Your task to perform on an android device: Set the phone to "Do not disturb". Image 0: 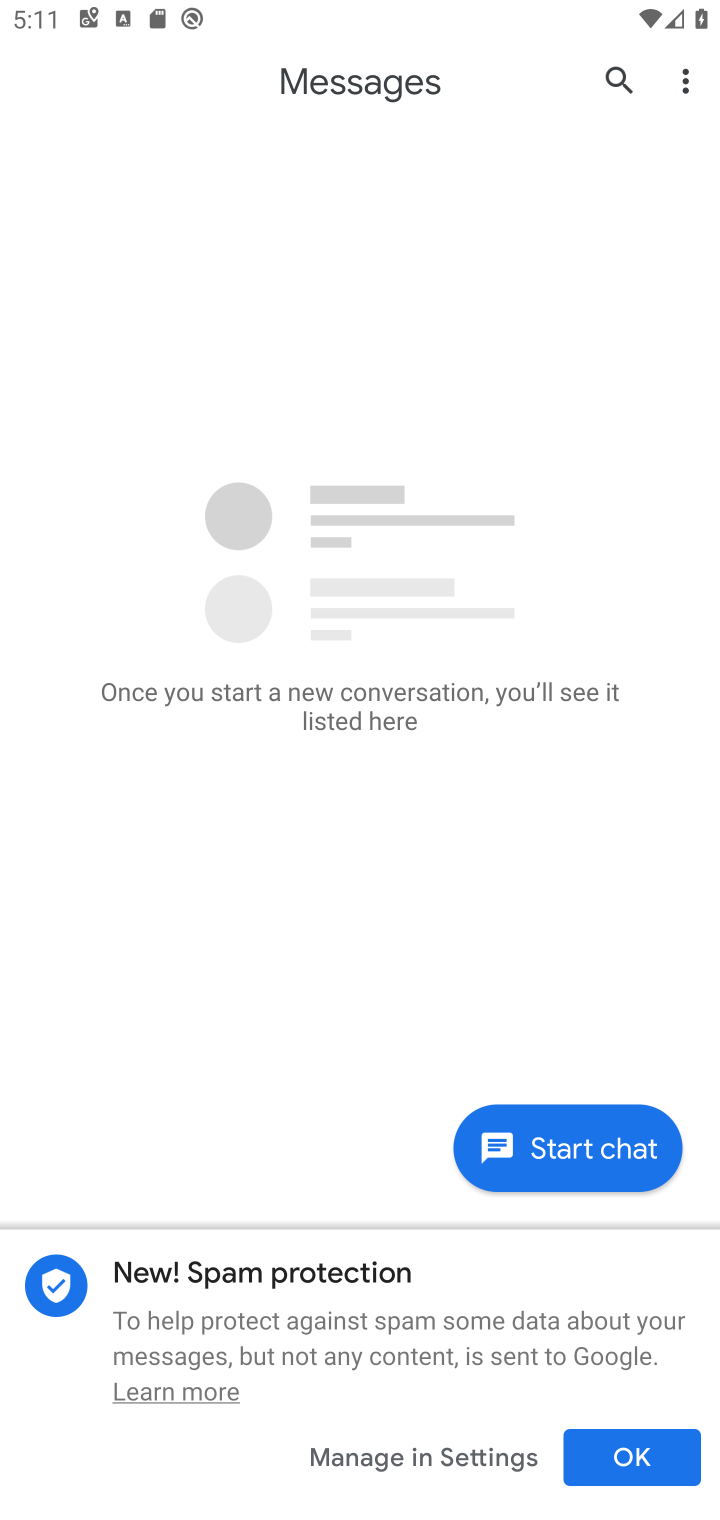
Step 0: press home button
Your task to perform on an android device: Set the phone to "Do not disturb". Image 1: 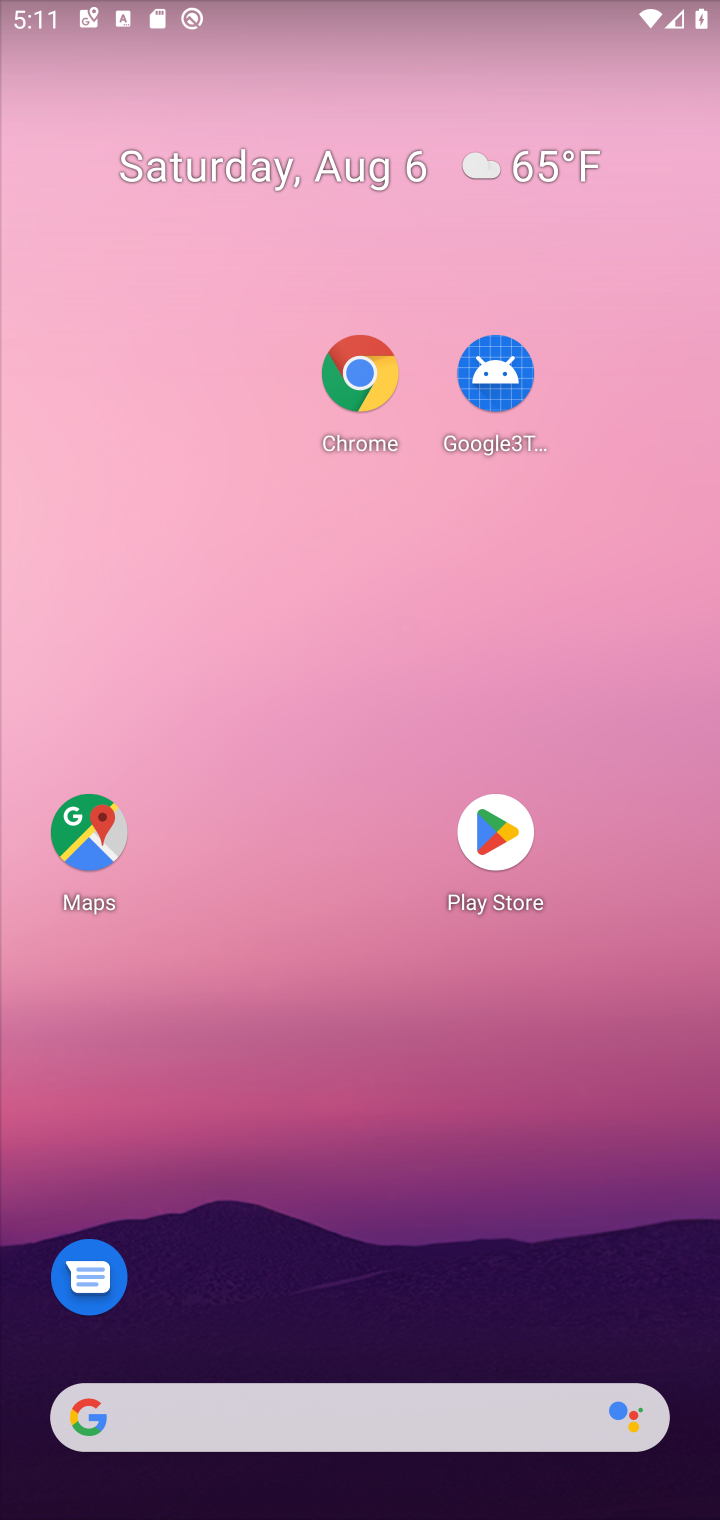
Step 1: drag from (470, 1388) to (433, 116)
Your task to perform on an android device: Set the phone to "Do not disturb". Image 2: 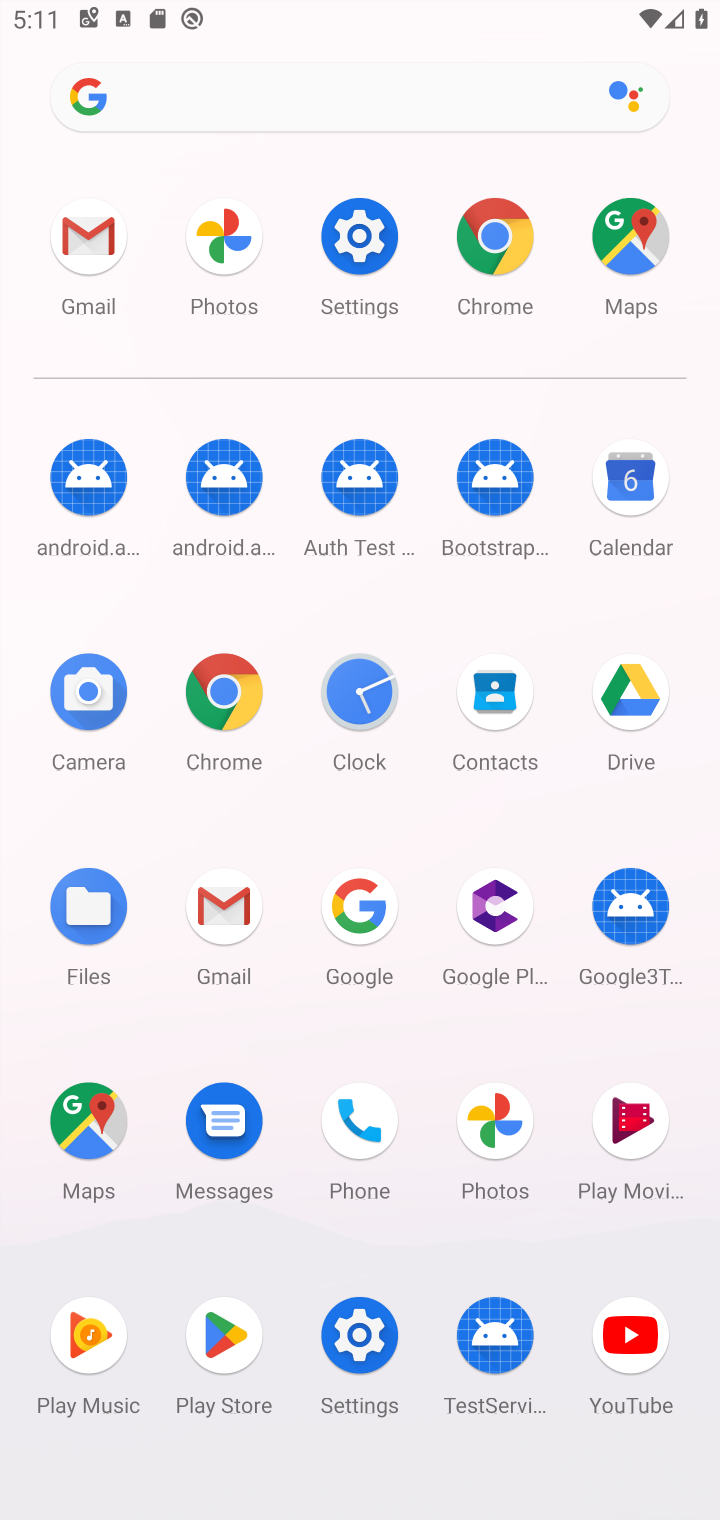
Step 2: click (345, 223)
Your task to perform on an android device: Set the phone to "Do not disturb". Image 3: 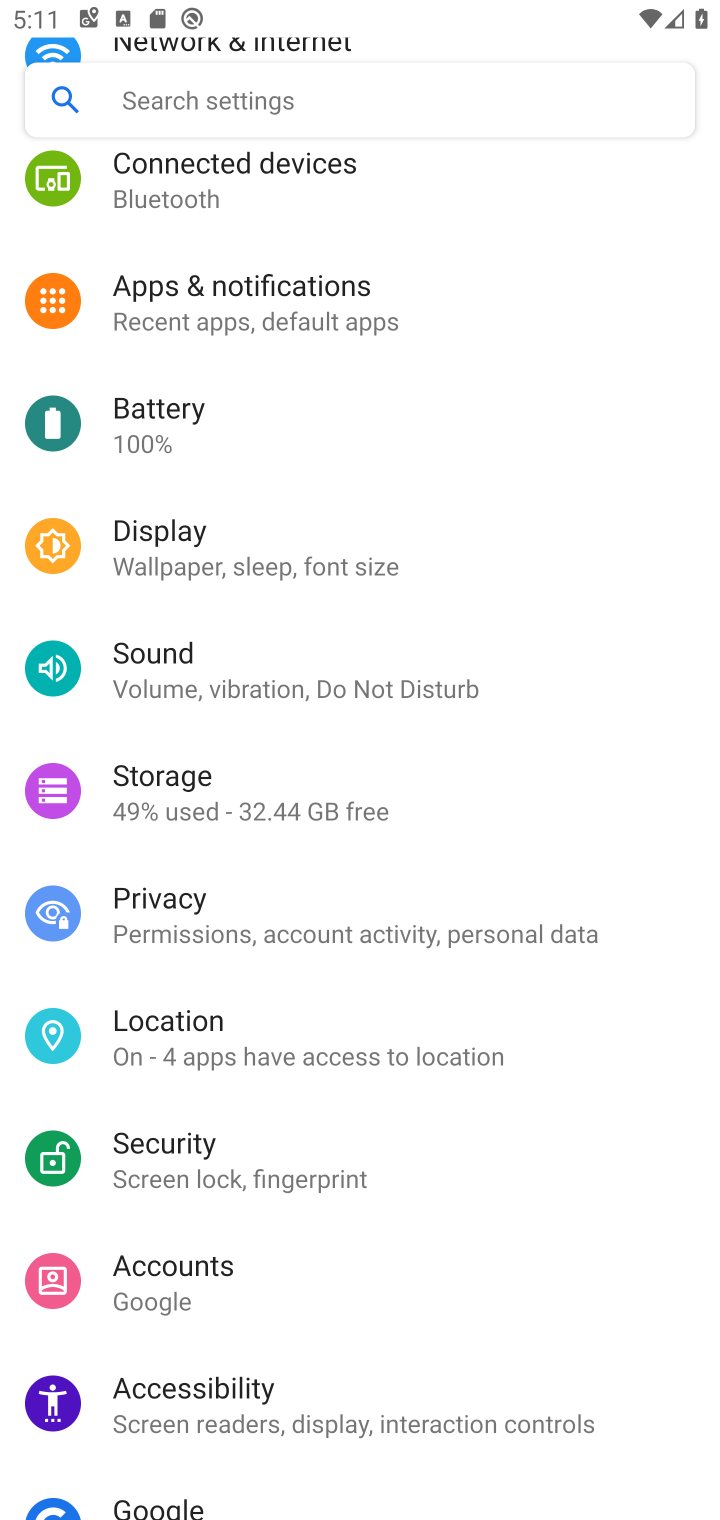
Step 3: click (179, 678)
Your task to perform on an android device: Set the phone to "Do not disturb". Image 4: 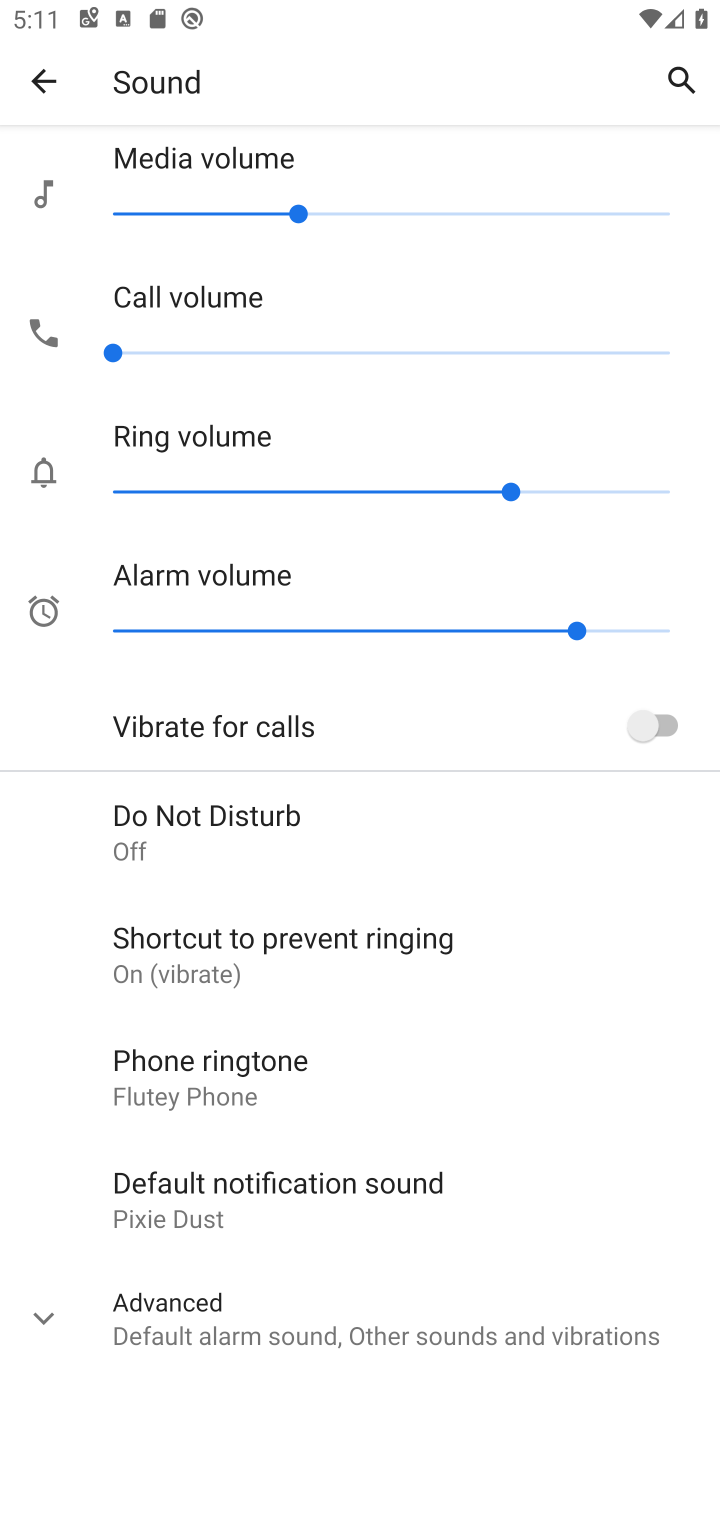
Step 4: click (259, 811)
Your task to perform on an android device: Set the phone to "Do not disturb". Image 5: 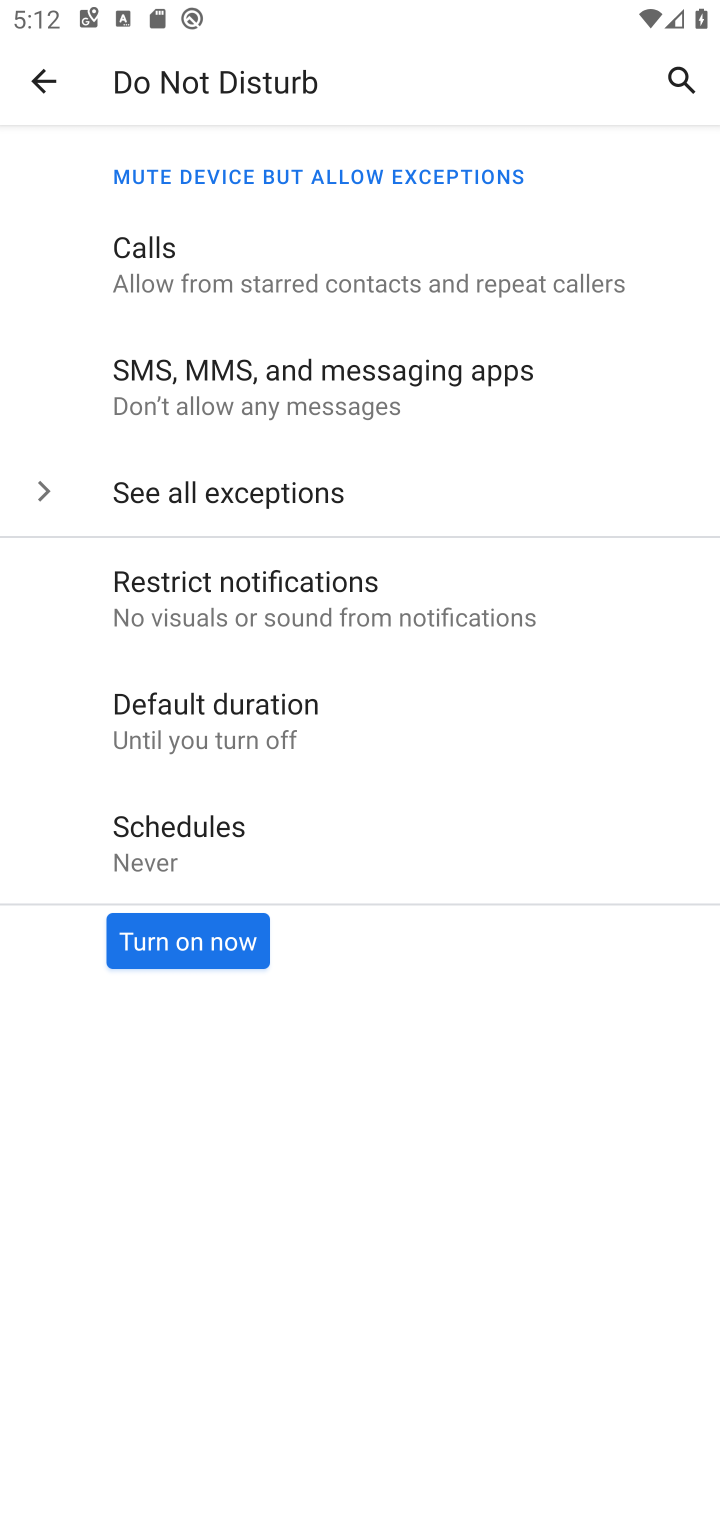
Step 5: click (168, 943)
Your task to perform on an android device: Set the phone to "Do not disturb". Image 6: 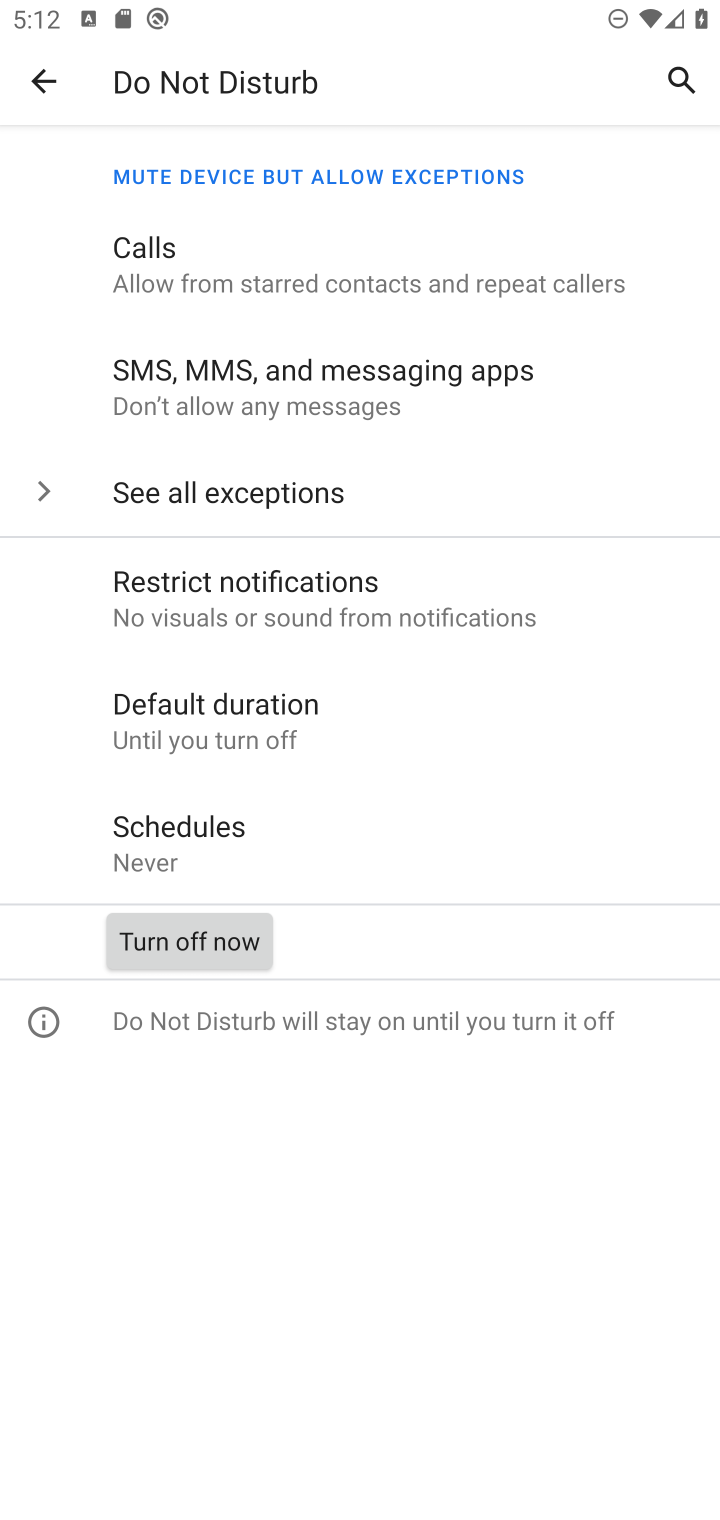
Step 6: task complete